Your task to perform on an android device: What's the latest news in astrophysics? Image 0: 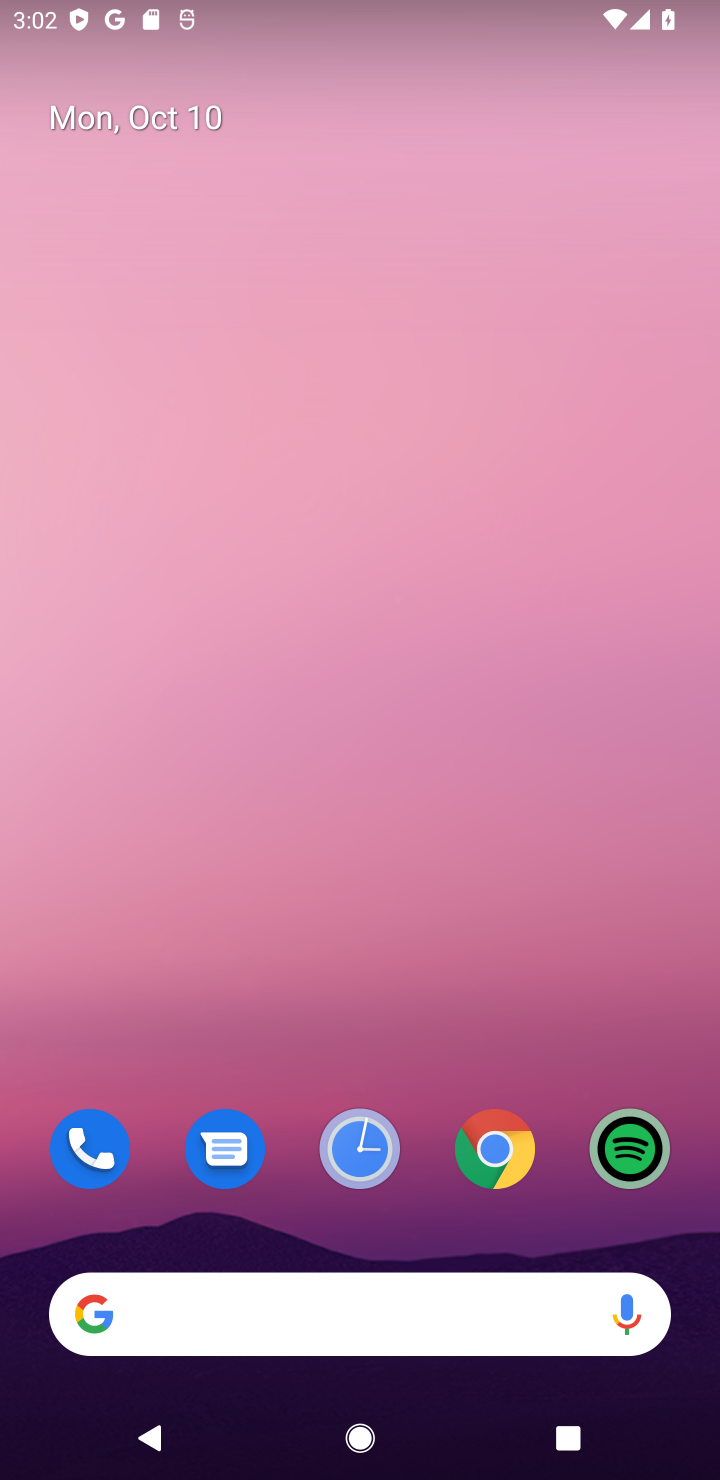
Step 0: click (240, 1294)
Your task to perform on an android device: What's the latest news in astrophysics? Image 1: 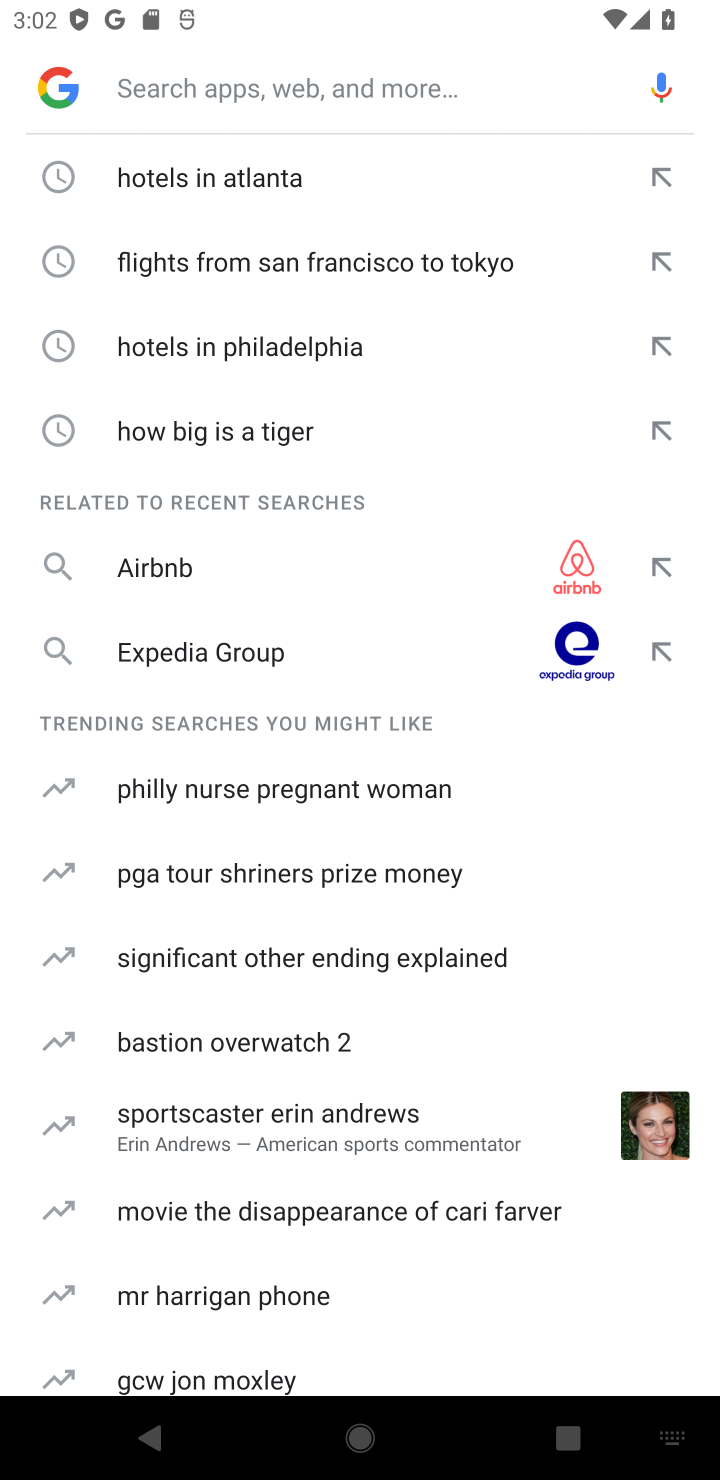
Step 1: type "latest news in astrophysics"
Your task to perform on an android device: What's the latest news in astrophysics? Image 2: 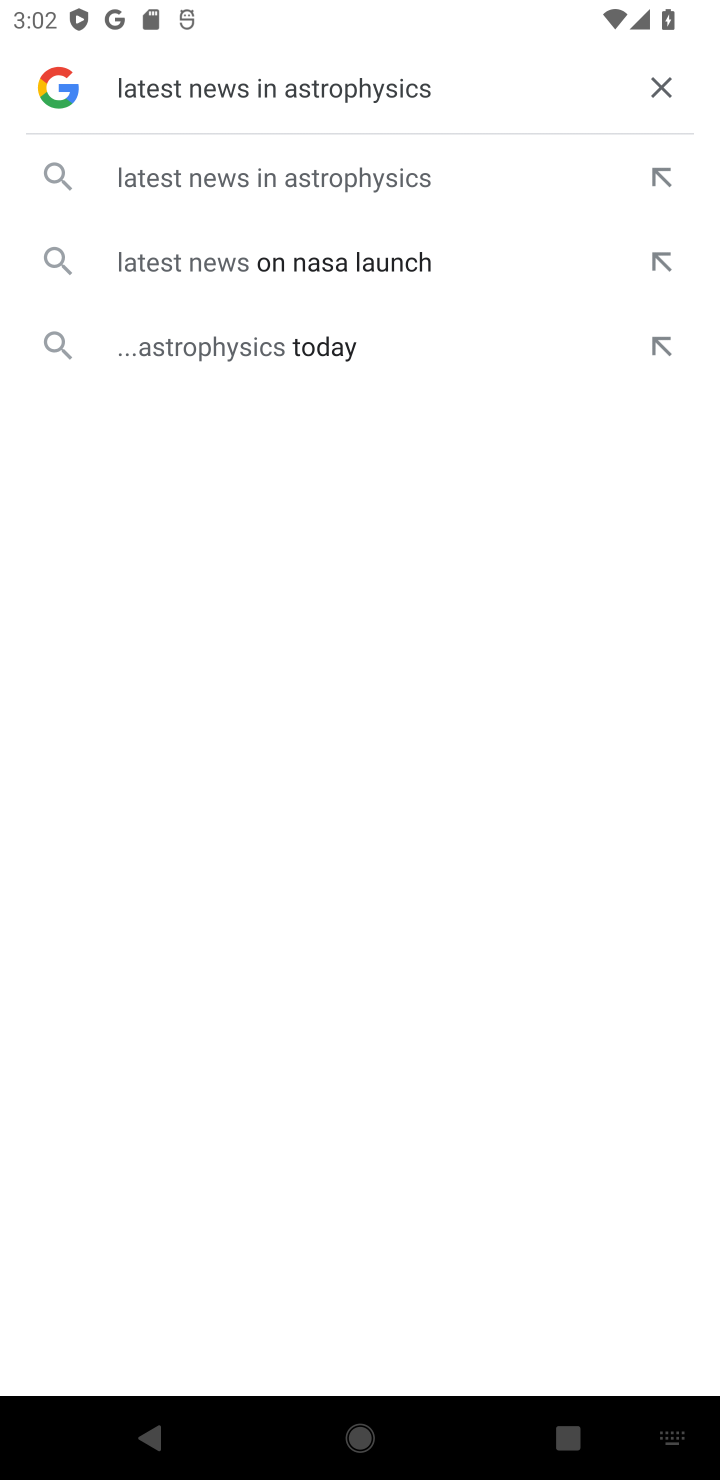
Step 2: click (406, 157)
Your task to perform on an android device: What's the latest news in astrophysics? Image 3: 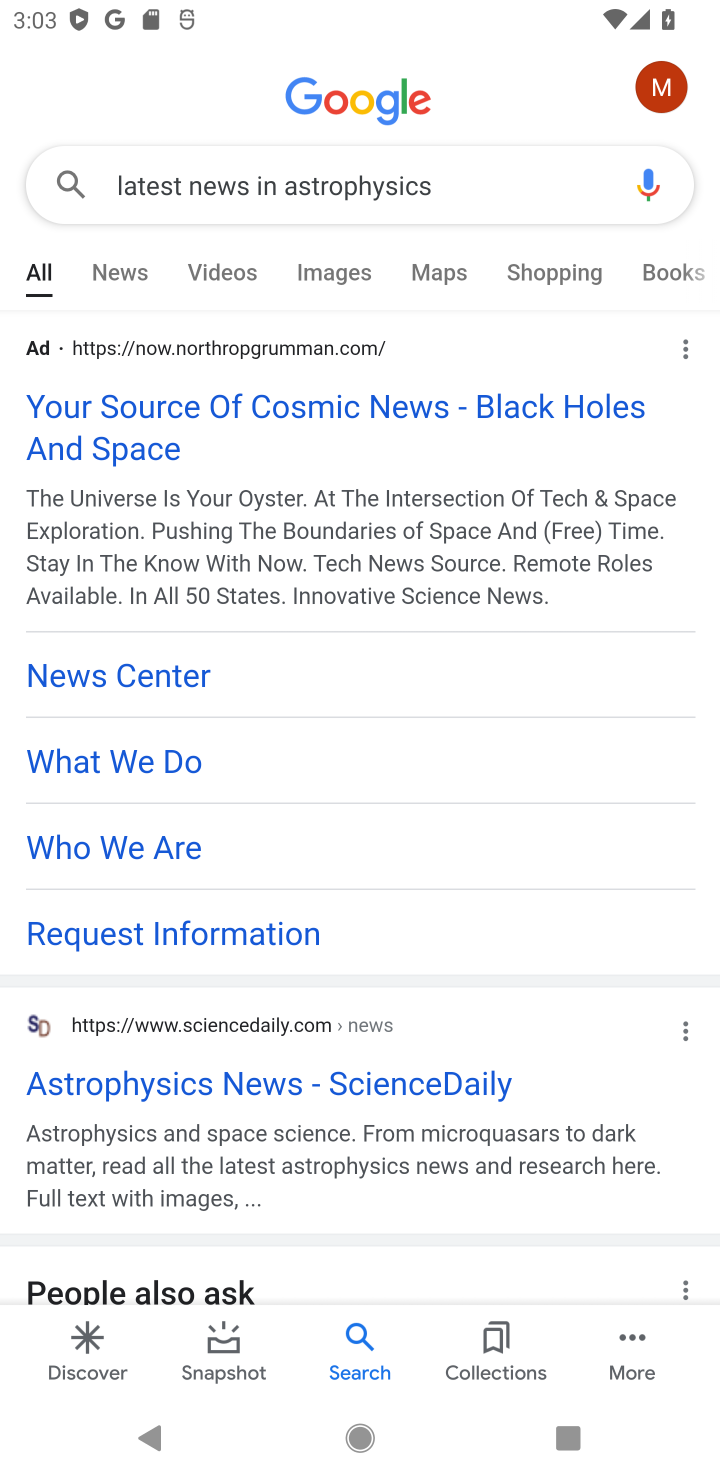
Step 3: task complete